Your task to perform on an android device: turn off data saver in the chrome app Image 0: 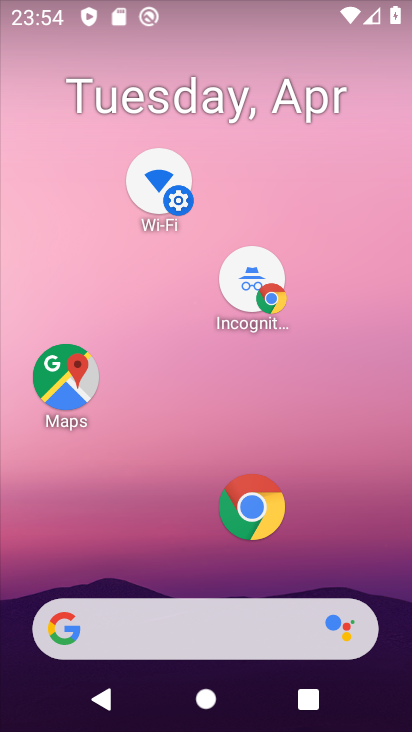
Step 0: click (291, 547)
Your task to perform on an android device: turn off data saver in the chrome app Image 1: 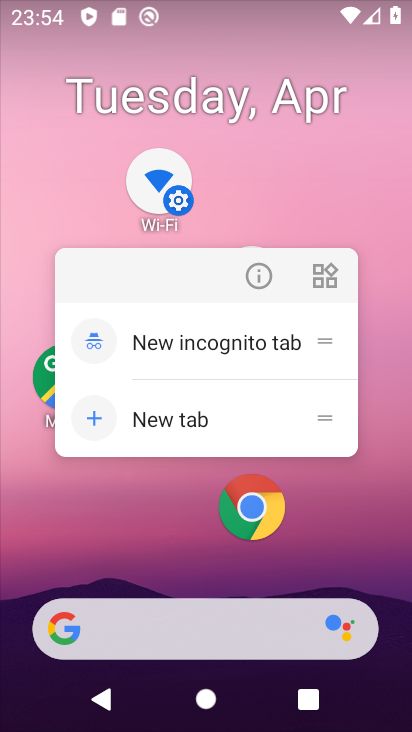
Step 1: click (243, 522)
Your task to perform on an android device: turn off data saver in the chrome app Image 2: 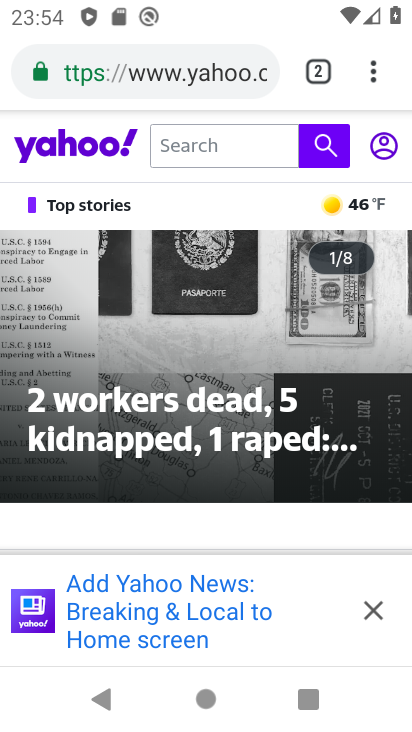
Step 2: click (374, 71)
Your task to perform on an android device: turn off data saver in the chrome app Image 3: 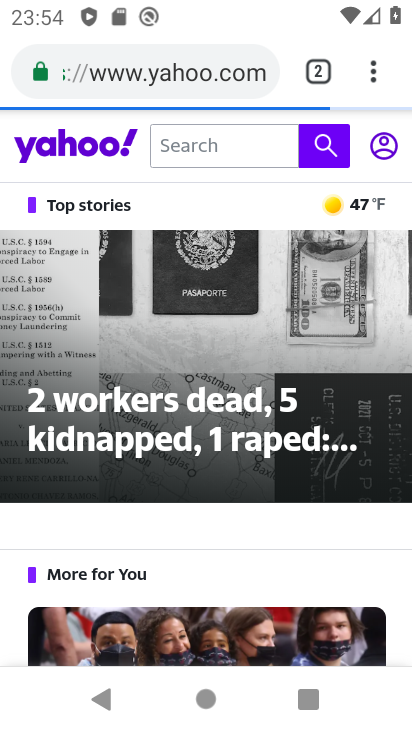
Step 3: click (367, 72)
Your task to perform on an android device: turn off data saver in the chrome app Image 4: 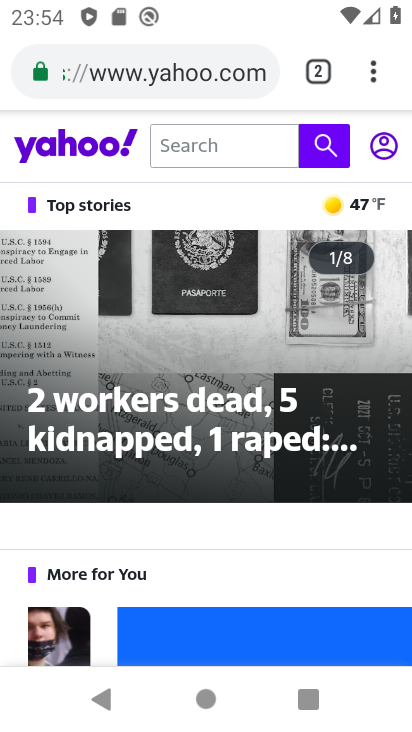
Step 4: click (369, 76)
Your task to perform on an android device: turn off data saver in the chrome app Image 5: 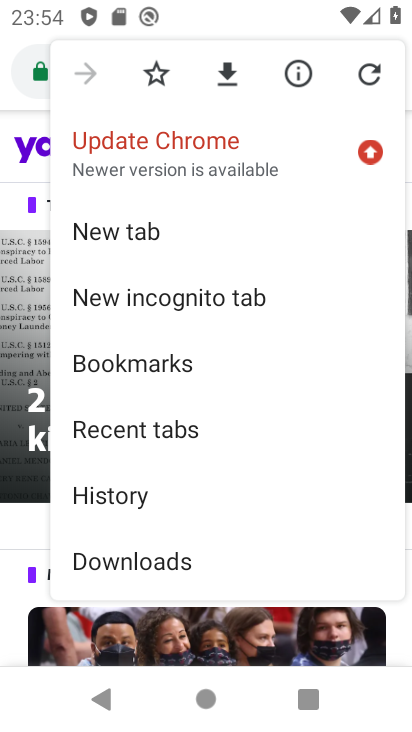
Step 5: drag from (274, 525) to (347, 211)
Your task to perform on an android device: turn off data saver in the chrome app Image 6: 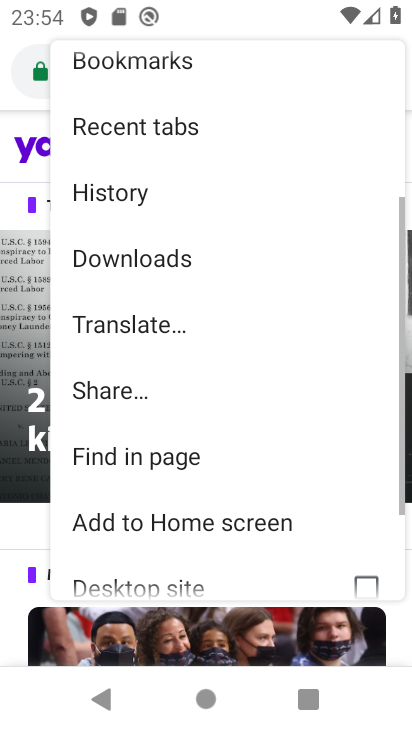
Step 6: drag from (121, 551) to (172, 336)
Your task to perform on an android device: turn off data saver in the chrome app Image 7: 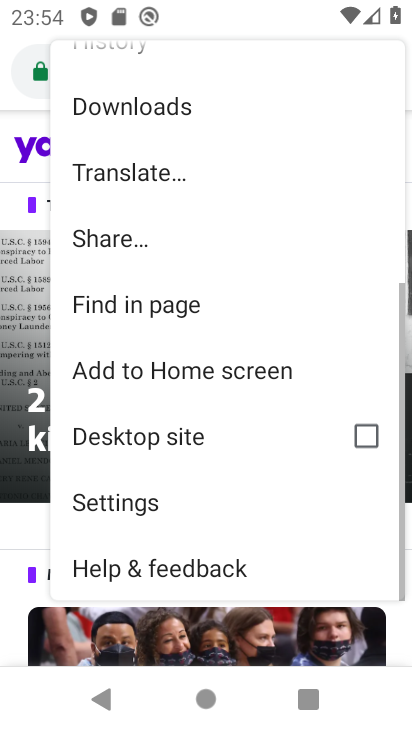
Step 7: click (142, 493)
Your task to perform on an android device: turn off data saver in the chrome app Image 8: 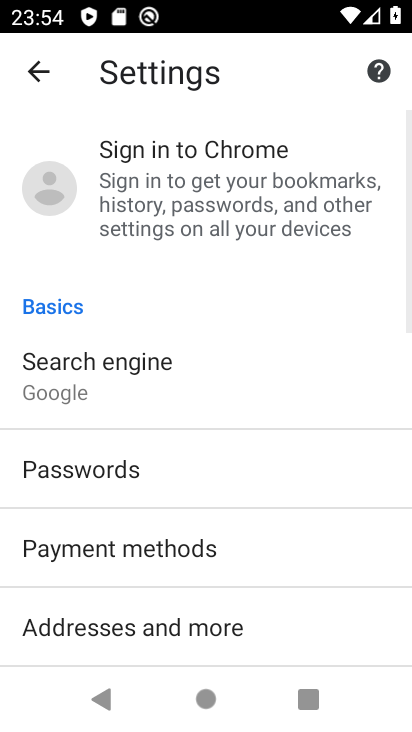
Step 8: drag from (265, 565) to (345, 289)
Your task to perform on an android device: turn off data saver in the chrome app Image 9: 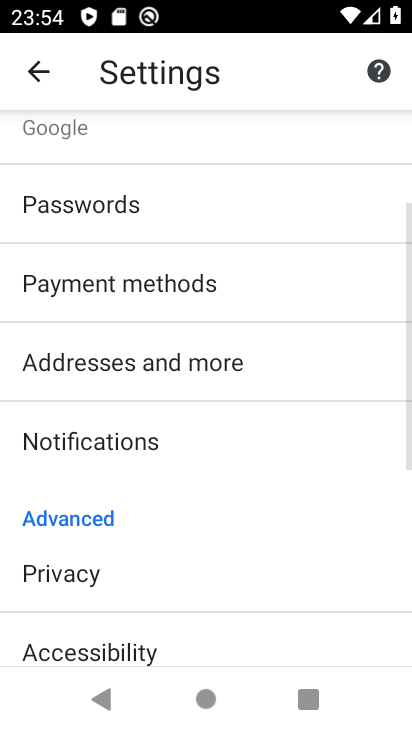
Step 9: drag from (197, 508) to (298, 195)
Your task to perform on an android device: turn off data saver in the chrome app Image 10: 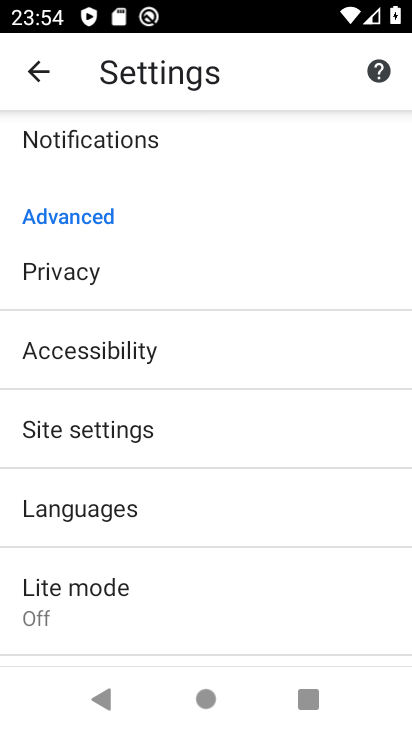
Step 10: click (144, 616)
Your task to perform on an android device: turn off data saver in the chrome app Image 11: 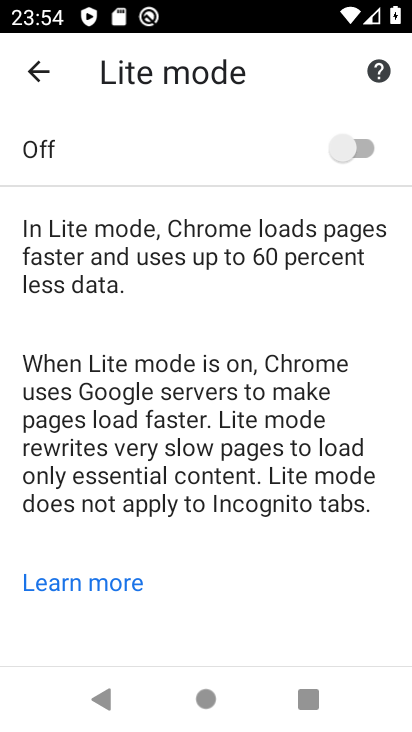
Step 11: drag from (350, 158) to (300, 162)
Your task to perform on an android device: turn off data saver in the chrome app Image 12: 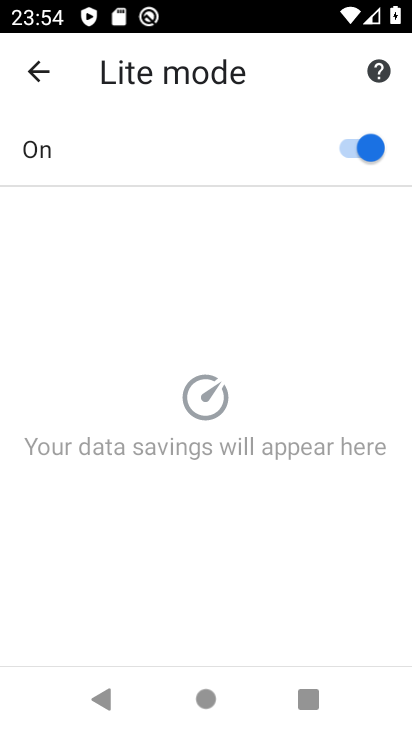
Step 12: click (356, 153)
Your task to perform on an android device: turn off data saver in the chrome app Image 13: 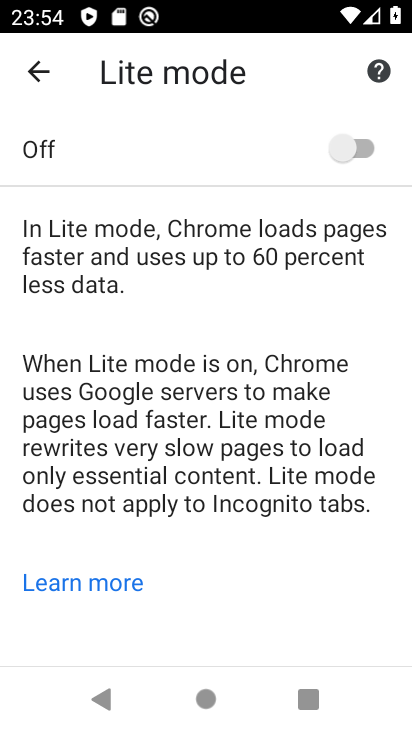
Step 13: task complete